Your task to perform on an android device: Search for the best-rated coffee table on Crate & Barrel Image 0: 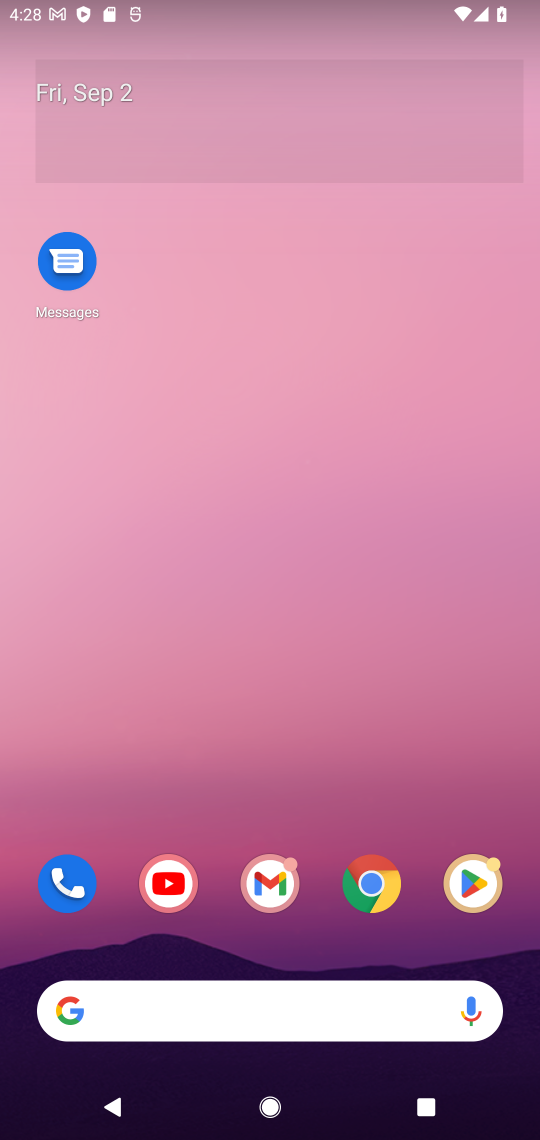
Step 0: drag from (273, 709) to (192, 25)
Your task to perform on an android device: Search for the best-rated coffee table on Crate & Barrel Image 1: 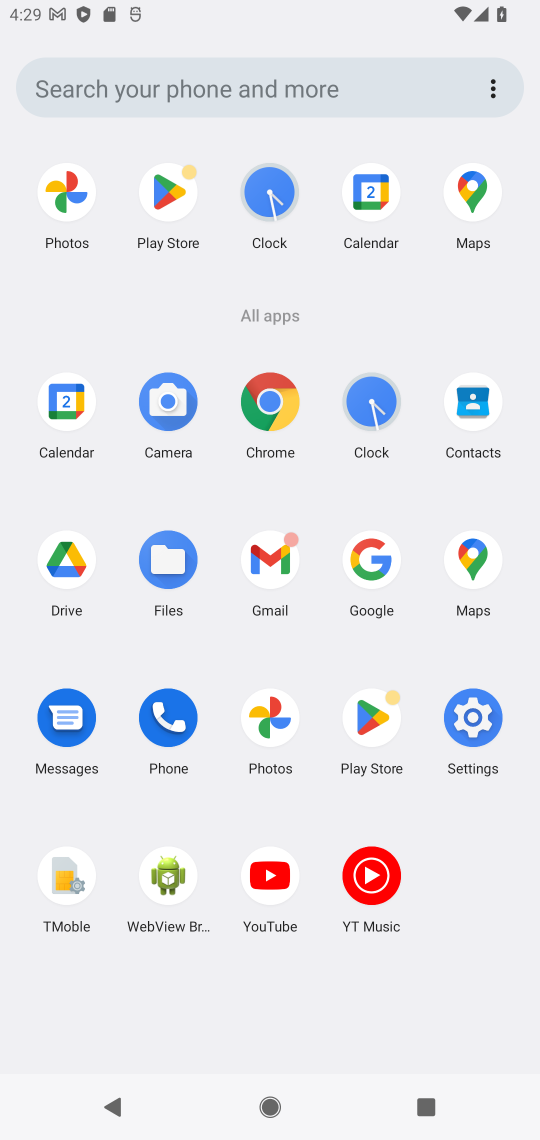
Step 1: click (278, 393)
Your task to perform on an android device: Search for the best-rated coffee table on Crate & Barrel Image 2: 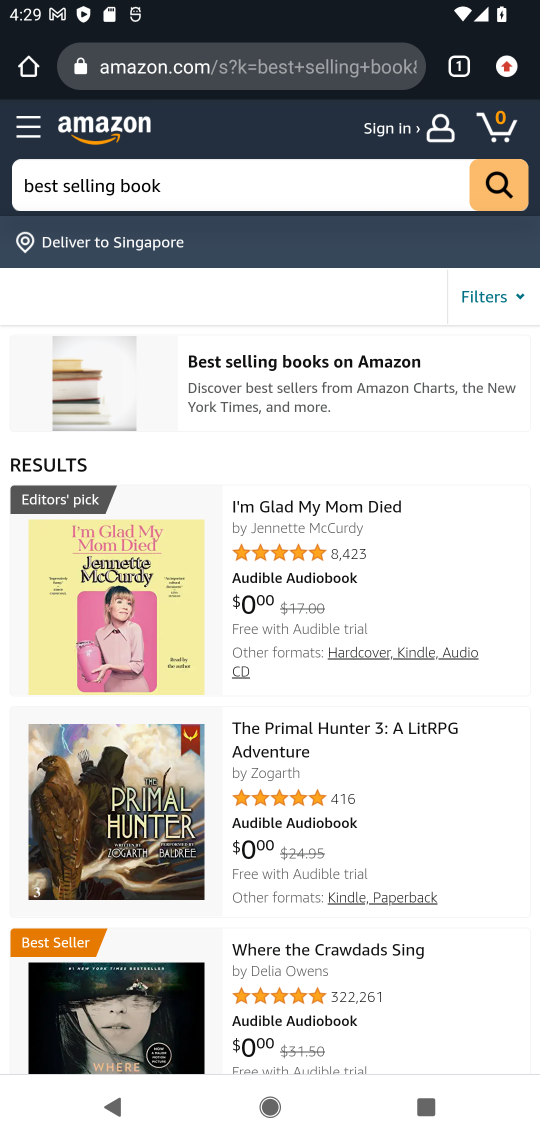
Step 2: click (285, 80)
Your task to perform on an android device: Search for the best-rated coffee table on Crate & Barrel Image 3: 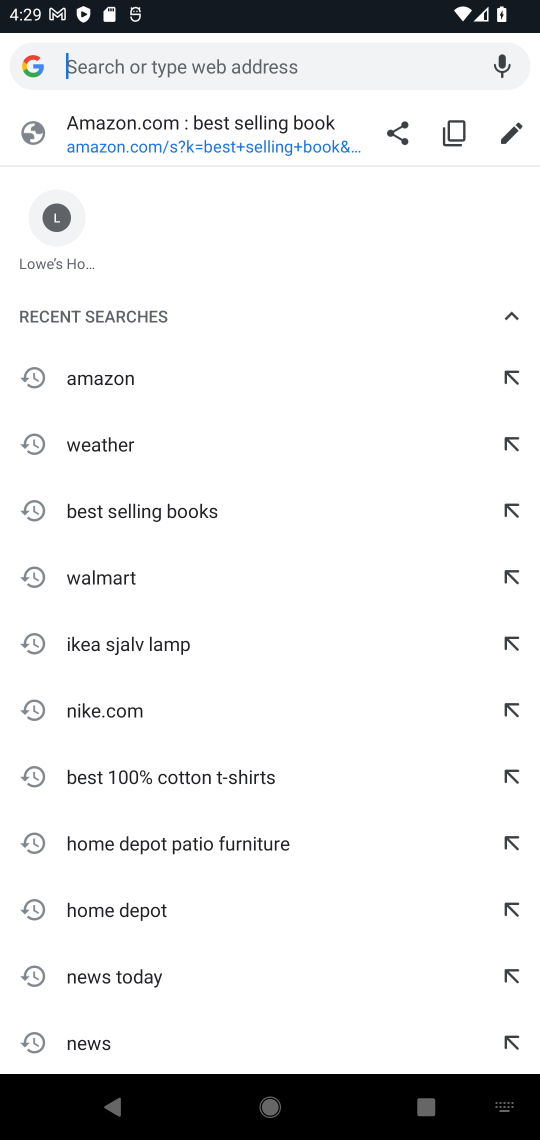
Step 3: type "Crate & Barrel"
Your task to perform on an android device: Search for the best-rated coffee table on Crate & Barrel Image 4: 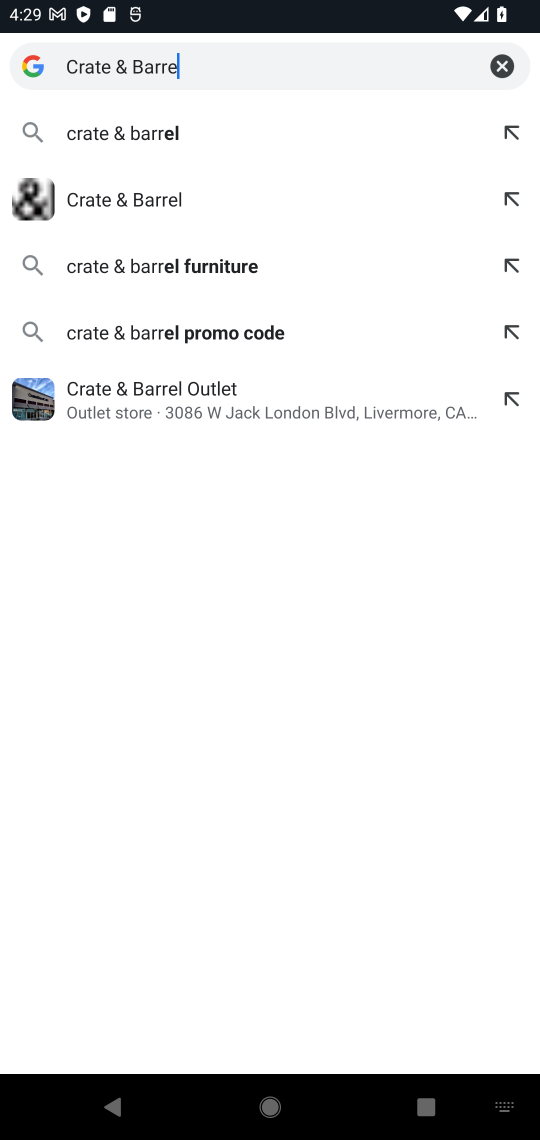
Step 4: press enter
Your task to perform on an android device: Search for the best-rated coffee table on Crate & Barrel Image 5: 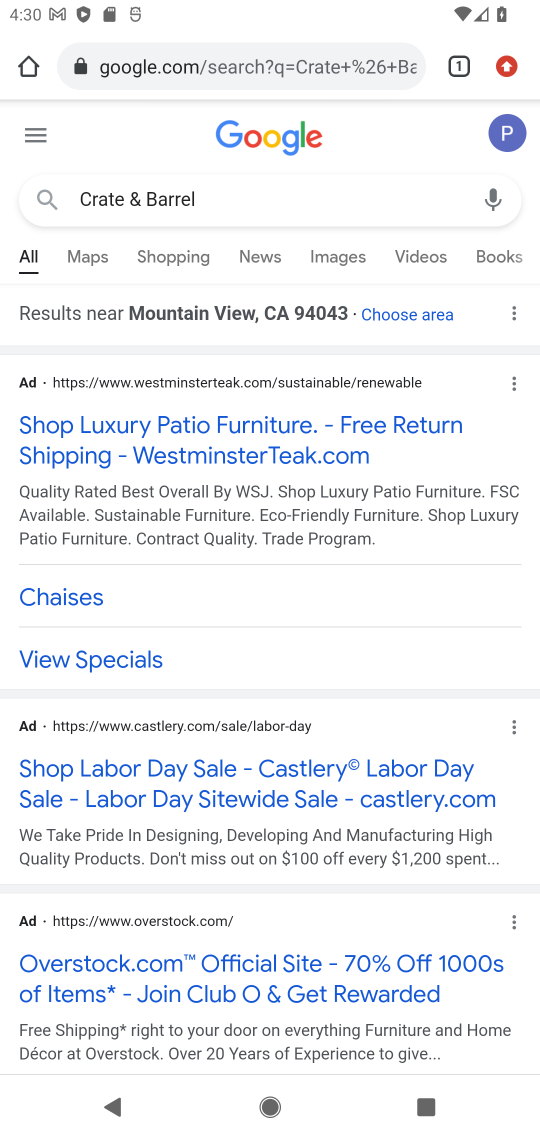
Step 5: drag from (350, 772) to (326, 361)
Your task to perform on an android device: Search for the best-rated coffee table on Crate & Barrel Image 6: 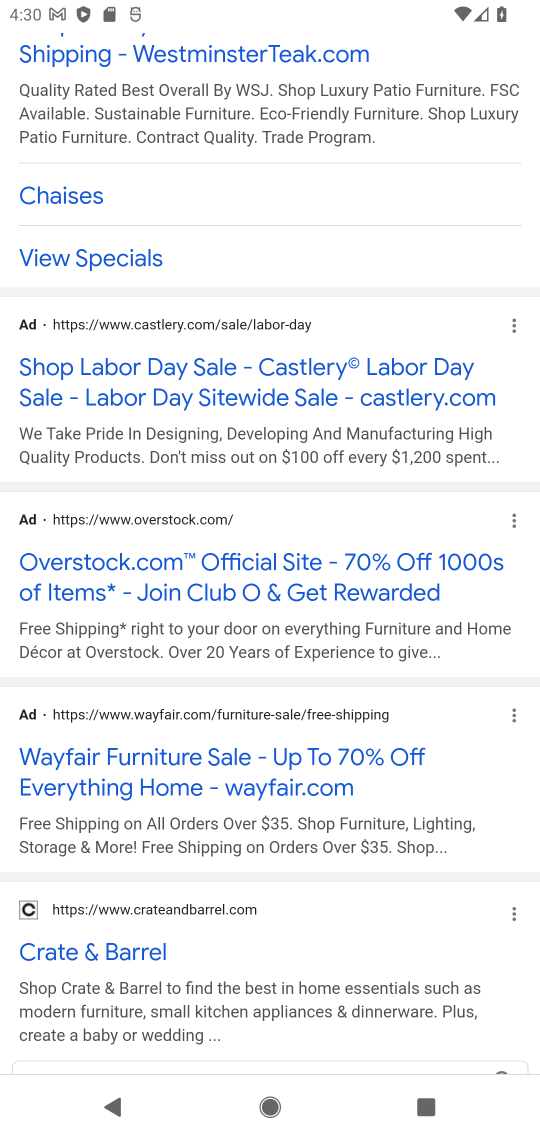
Step 6: click (105, 953)
Your task to perform on an android device: Search for the best-rated coffee table on Crate & Barrel Image 7: 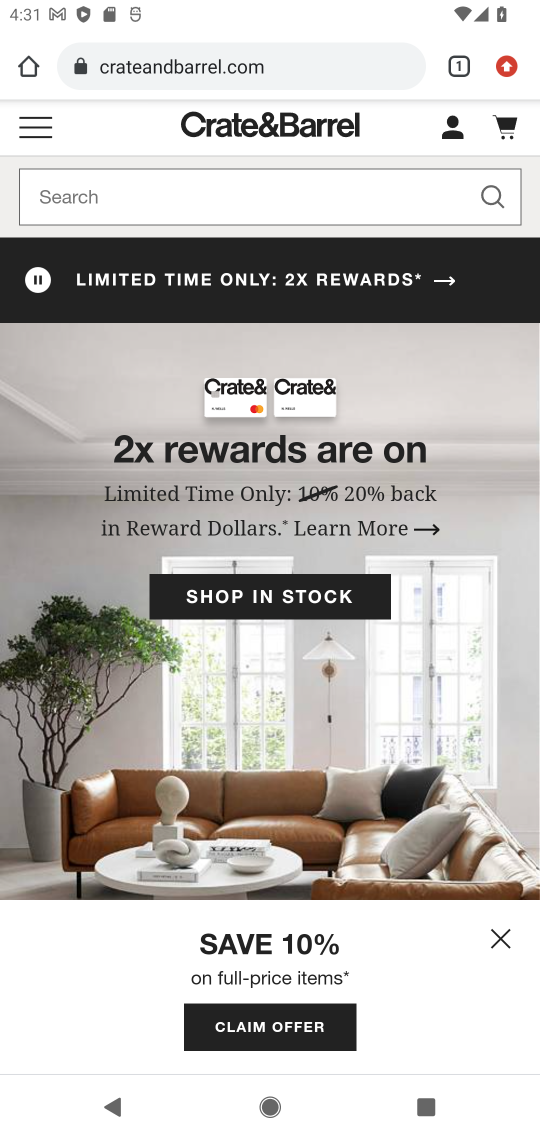
Step 7: press enter
Your task to perform on an android device: Search for the best-rated coffee table on Crate & Barrel Image 8: 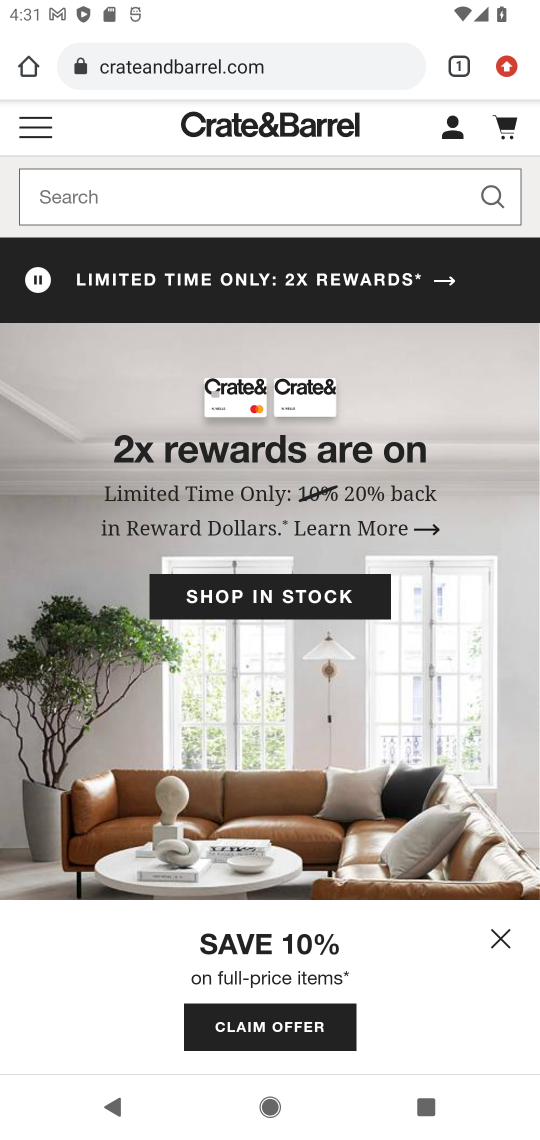
Step 8: type "best-rated coffee table"
Your task to perform on an android device: Search for the best-rated coffee table on Crate & Barrel Image 9: 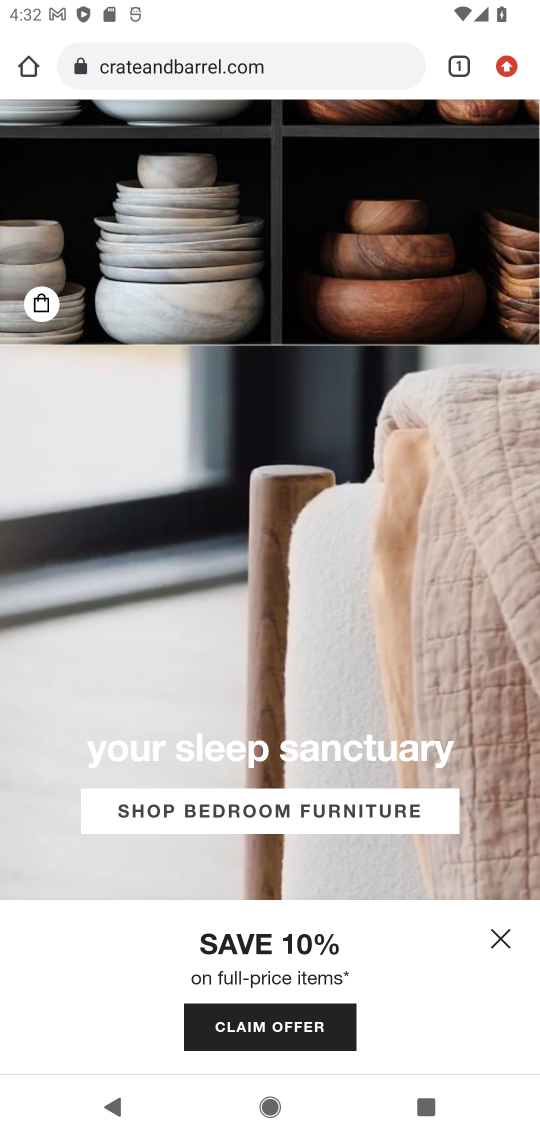
Step 9: task complete